Your task to perform on an android device: set the stopwatch Image 0: 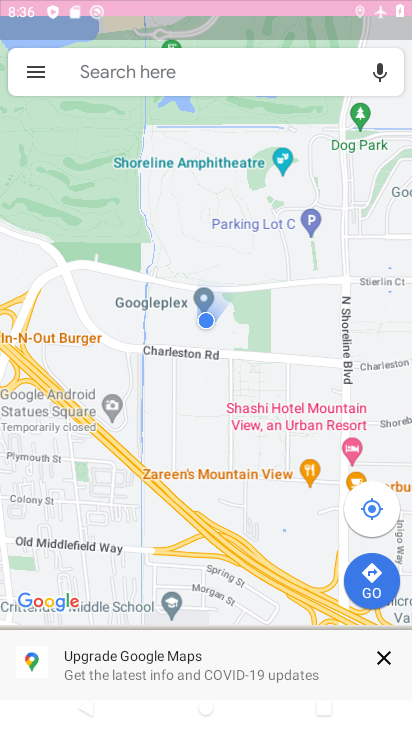
Step 0: drag from (241, 148) to (225, 77)
Your task to perform on an android device: set the stopwatch Image 1: 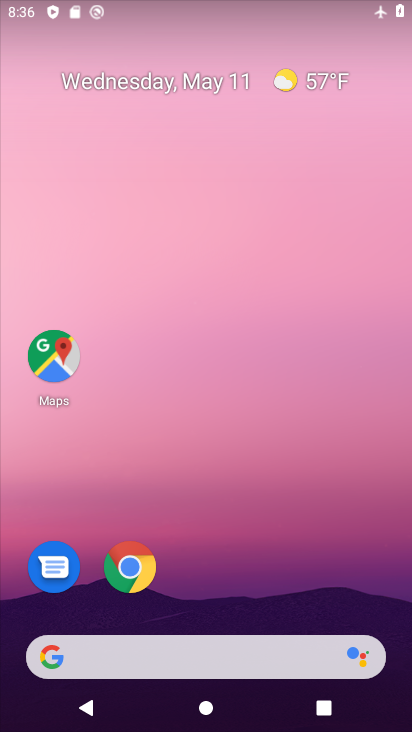
Step 1: press home button
Your task to perform on an android device: set the stopwatch Image 2: 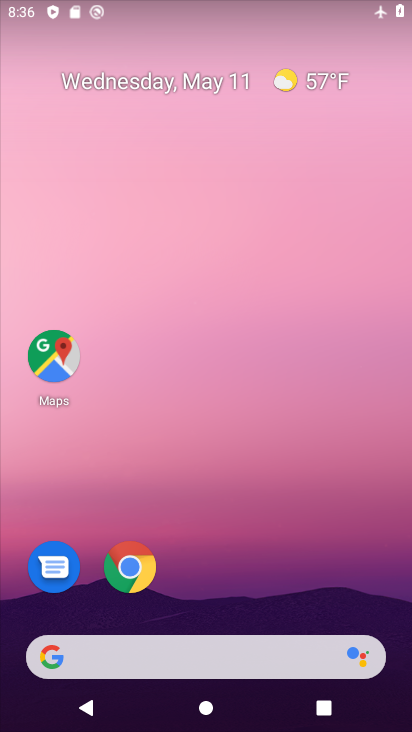
Step 2: drag from (294, 545) to (255, 60)
Your task to perform on an android device: set the stopwatch Image 3: 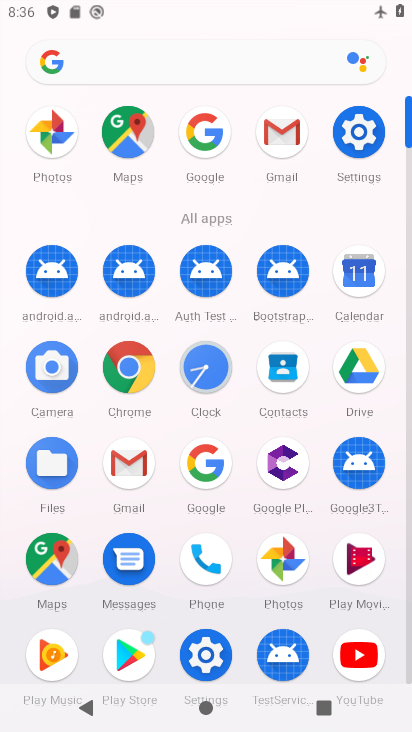
Step 3: click (196, 365)
Your task to perform on an android device: set the stopwatch Image 4: 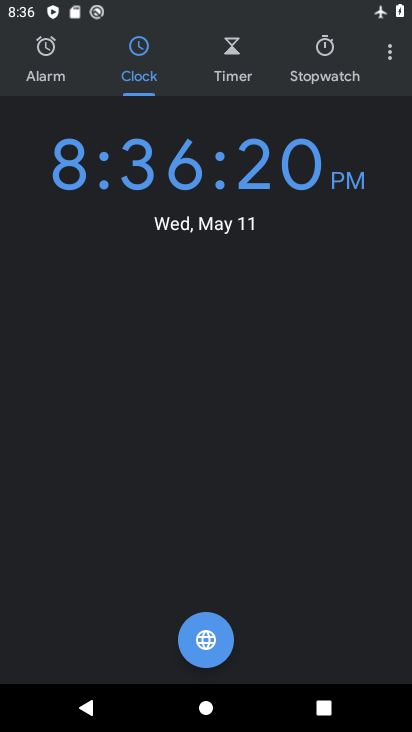
Step 4: click (328, 52)
Your task to perform on an android device: set the stopwatch Image 5: 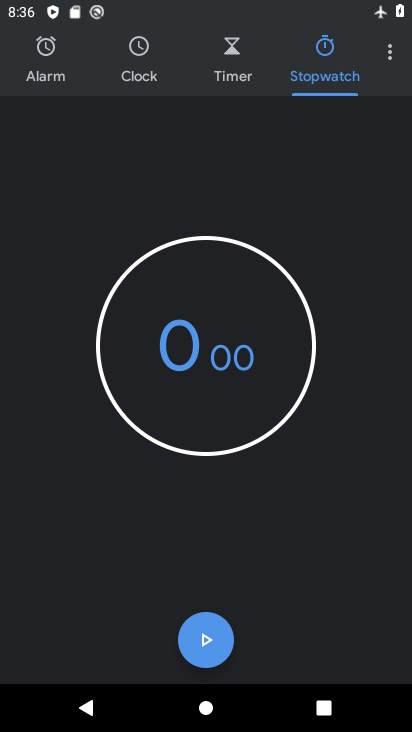
Step 5: click (202, 657)
Your task to perform on an android device: set the stopwatch Image 6: 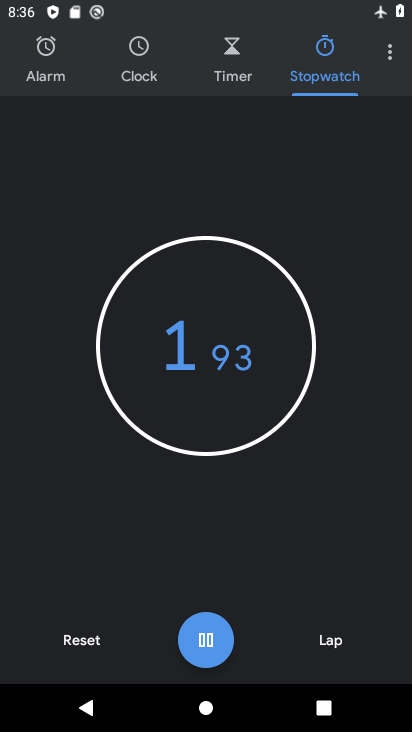
Step 6: task complete